Your task to perform on an android device: Go to battery settings Image 0: 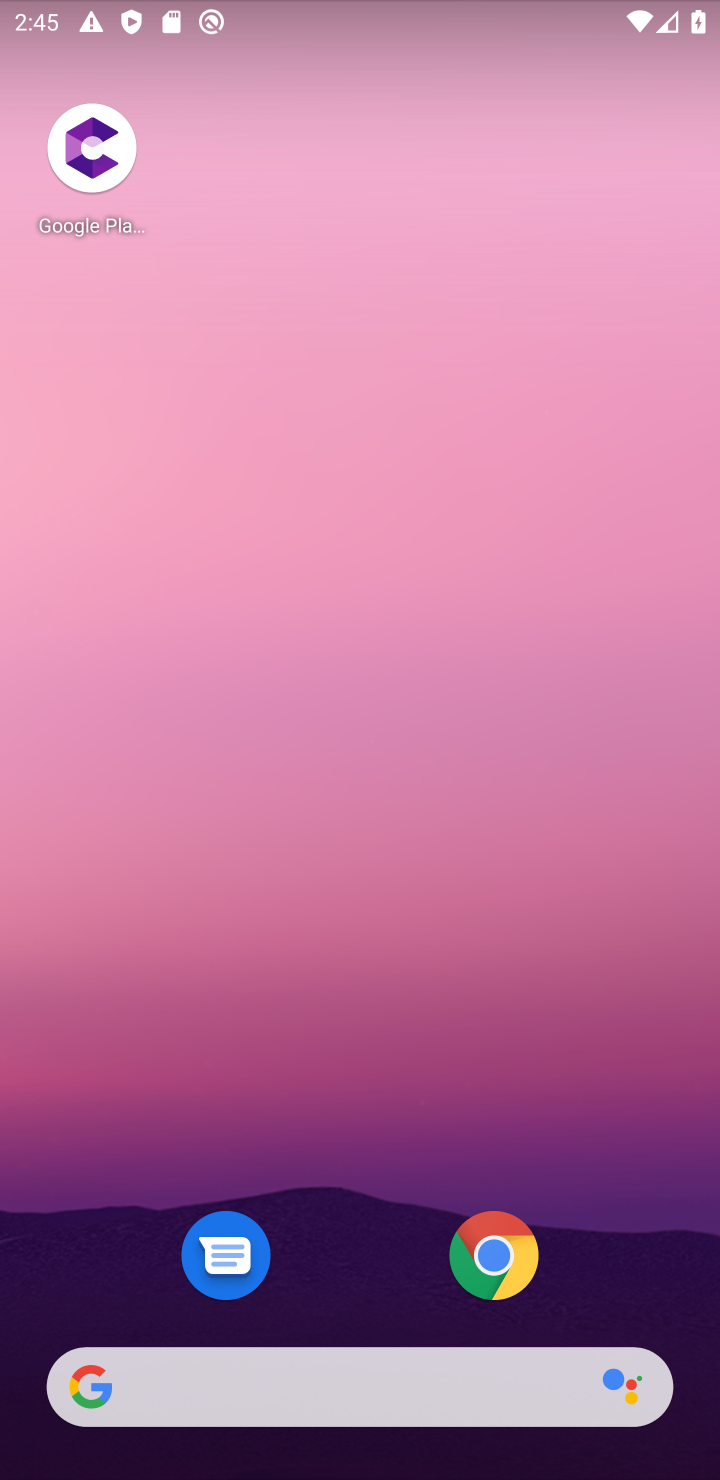
Step 0: drag from (330, 1312) to (314, 344)
Your task to perform on an android device: Go to battery settings Image 1: 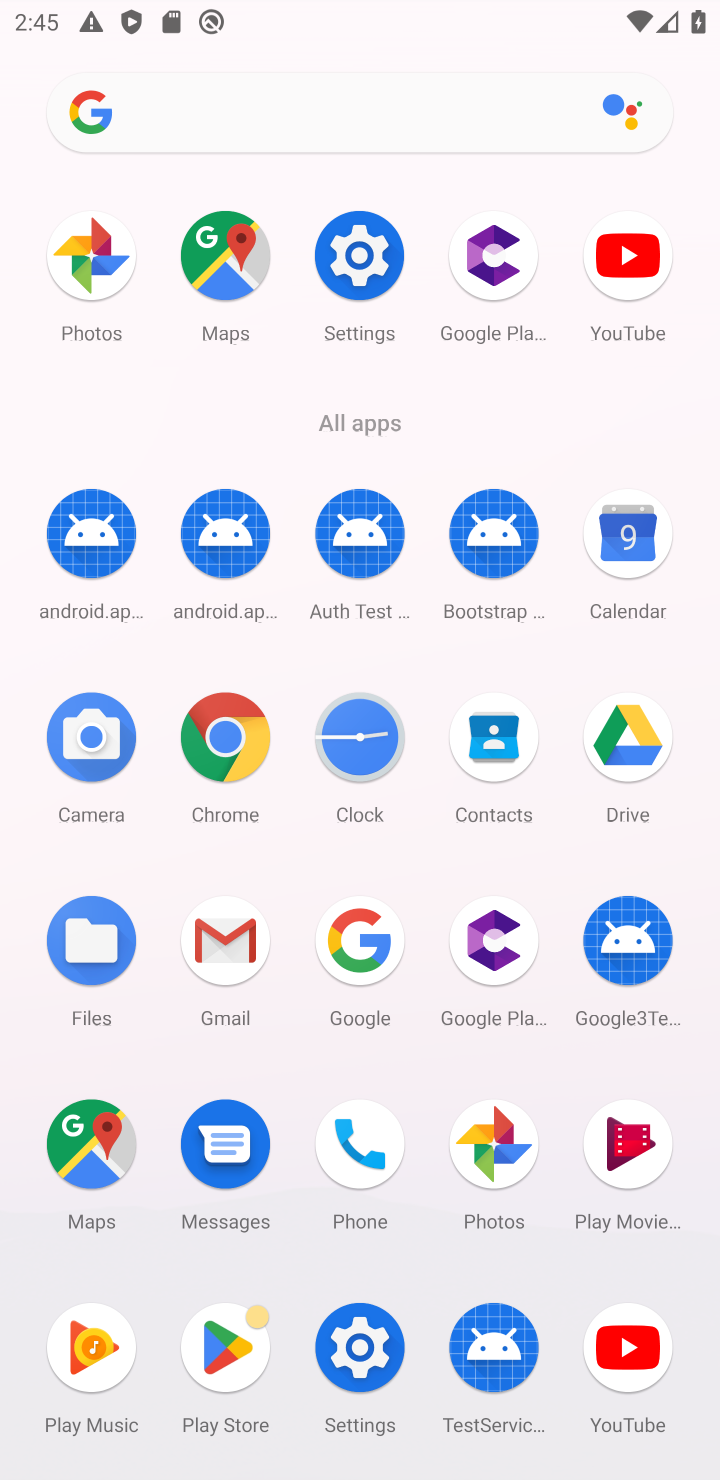
Step 1: click (365, 259)
Your task to perform on an android device: Go to battery settings Image 2: 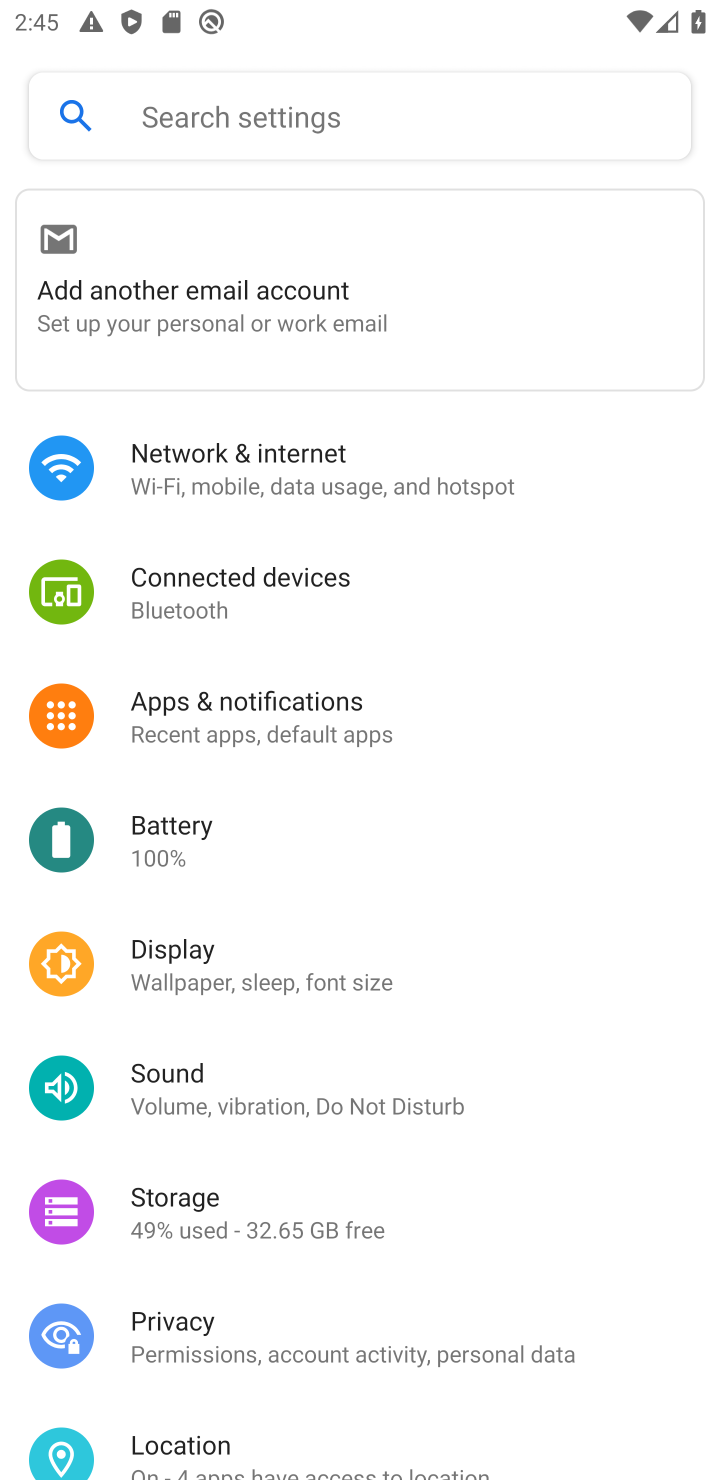
Step 2: click (215, 826)
Your task to perform on an android device: Go to battery settings Image 3: 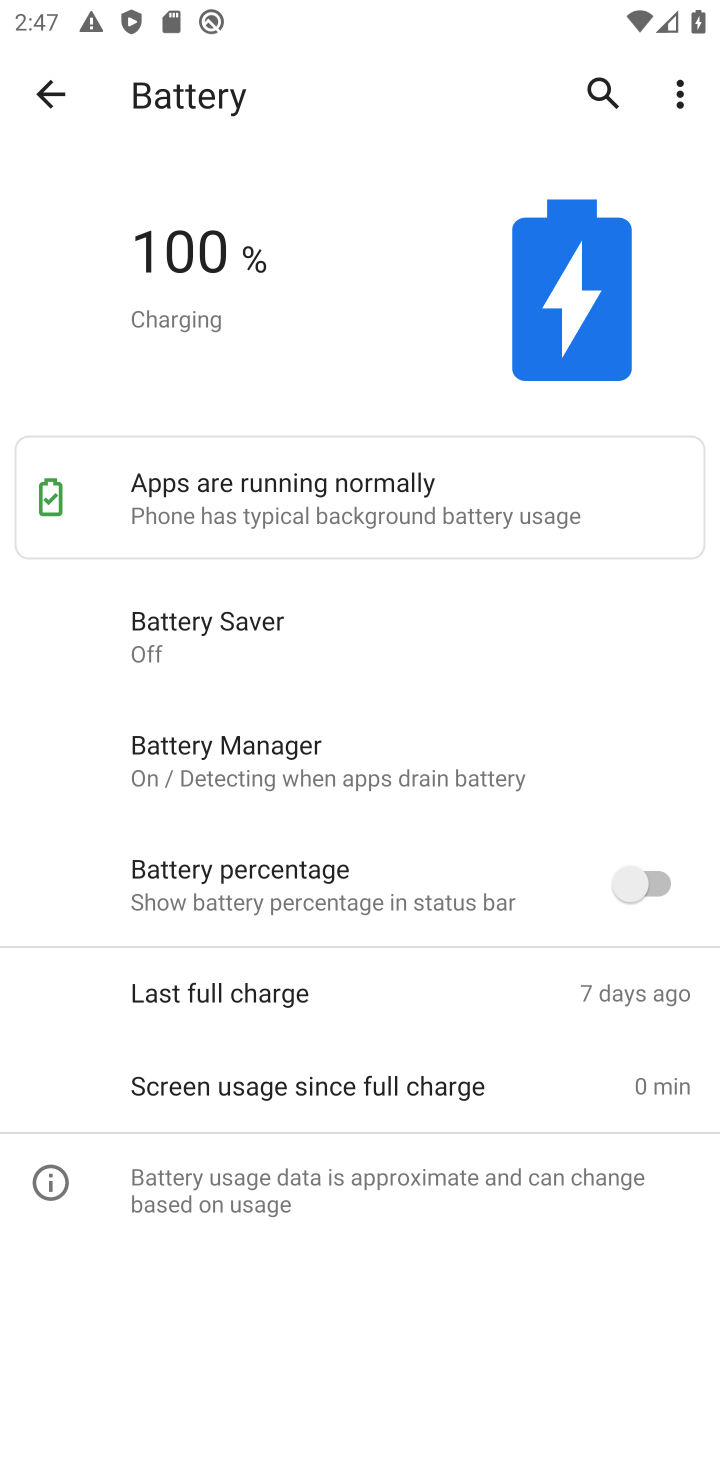
Step 3: task complete